Your task to perform on an android device: Open settings Image 0: 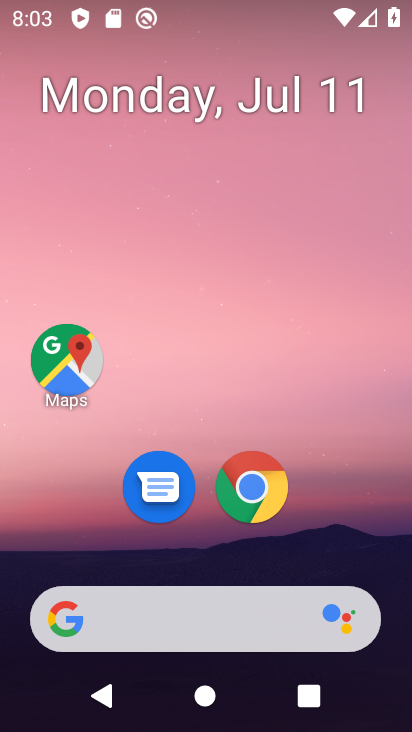
Step 0: drag from (190, 544) to (276, 3)
Your task to perform on an android device: Open settings Image 1: 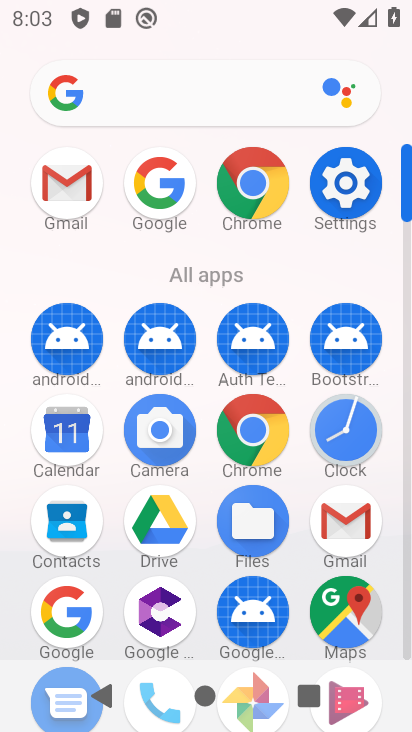
Step 1: click (353, 183)
Your task to perform on an android device: Open settings Image 2: 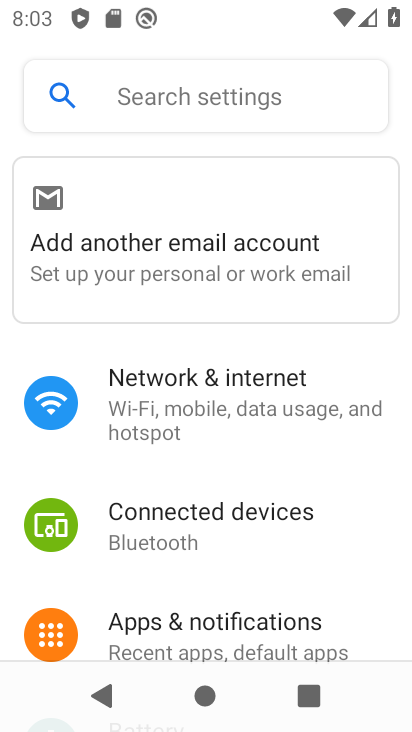
Step 2: task complete